Your task to perform on an android device: Search for sushi restaurants on Maps Image 0: 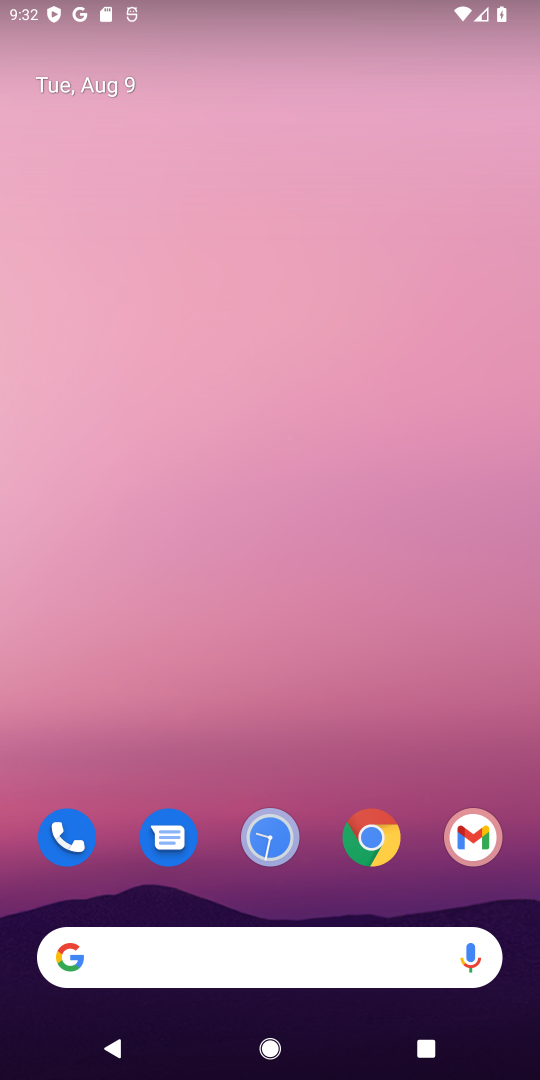
Step 0: drag from (313, 780) to (301, 276)
Your task to perform on an android device: Search for sushi restaurants on Maps Image 1: 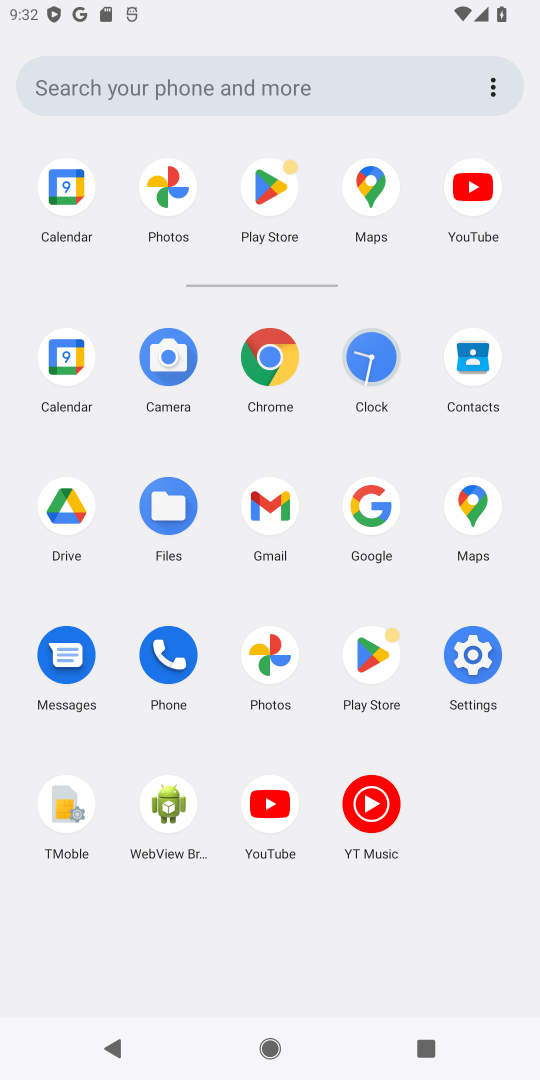
Step 1: click (466, 506)
Your task to perform on an android device: Search for sushi restaurants on Maps Image 2: 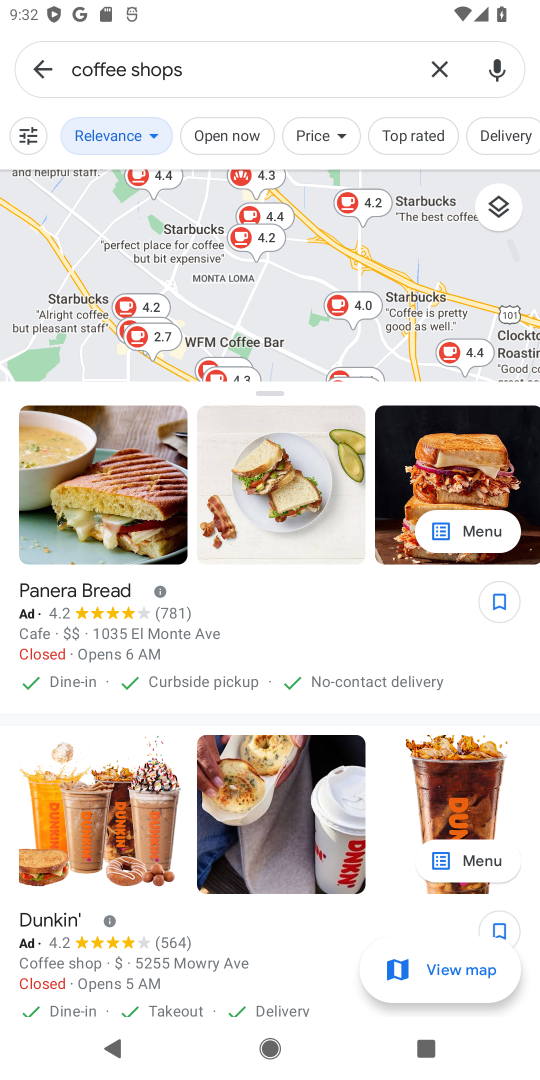
Step 2: click (439, 66)
Your task to perform on an android device: Search for sushi restaurants on Maps Image 3: 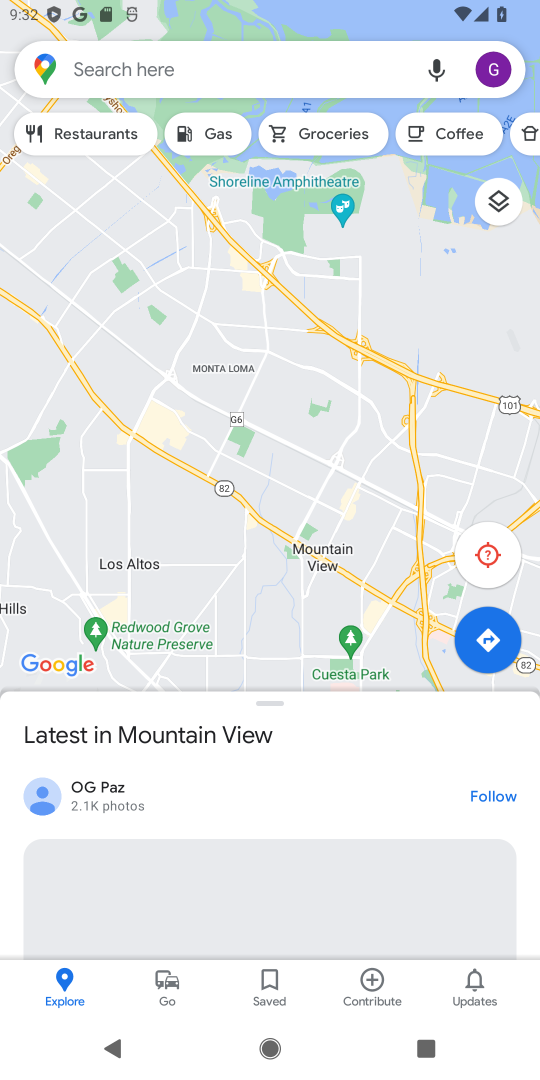
Step 3: click (249, 64)
Your task to perform on an android device: Search for sushi restaurants on Maps Image 4: 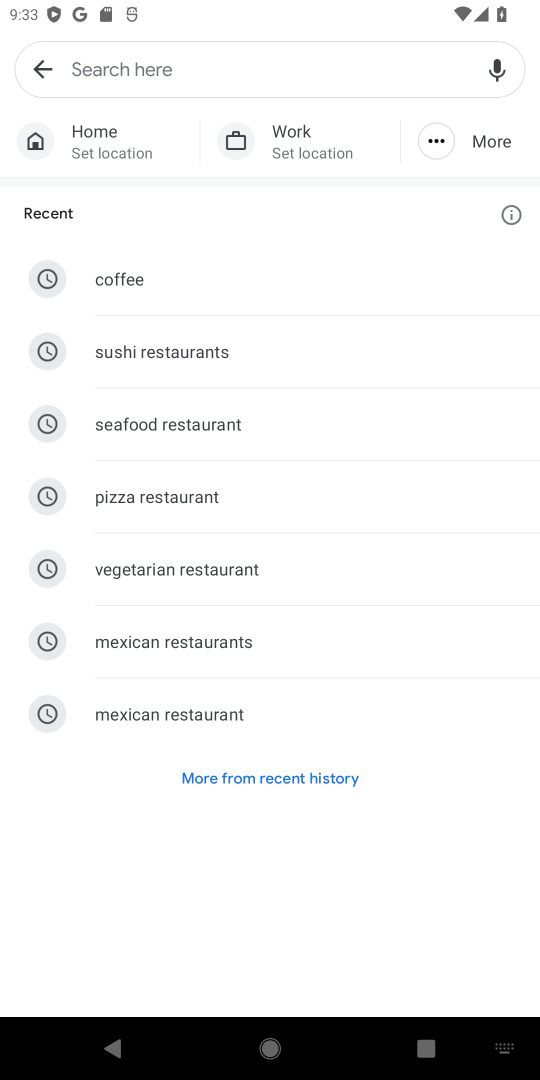
Step 4: type "Sushi restaurants"
Your task to perform on an android device: Search for sushi restaurants on Maps Image 5: 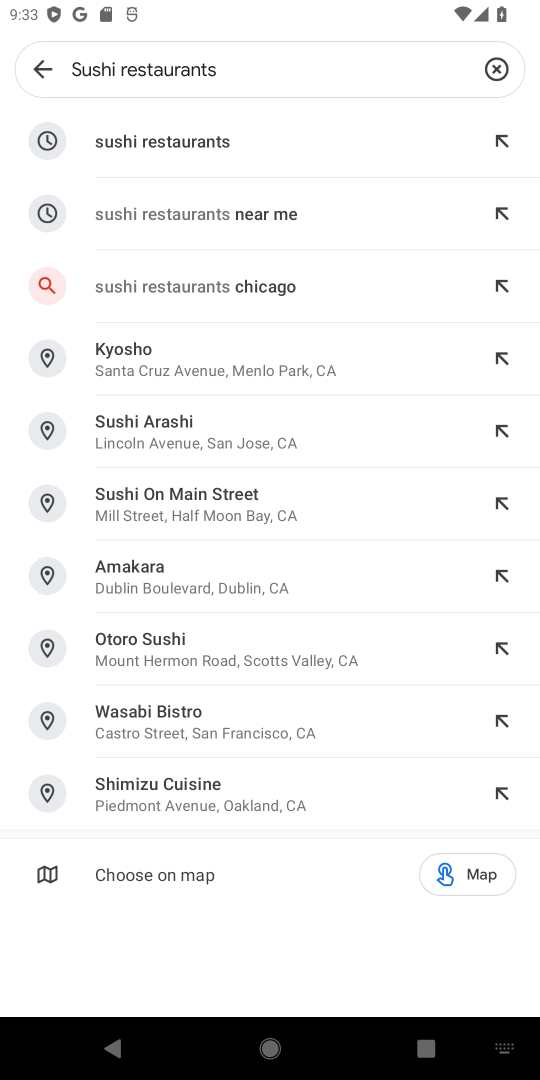
Step 5: click (208, 140)
Your task to perform on an android device: Search for sushi restaurants on Maps Image 6: 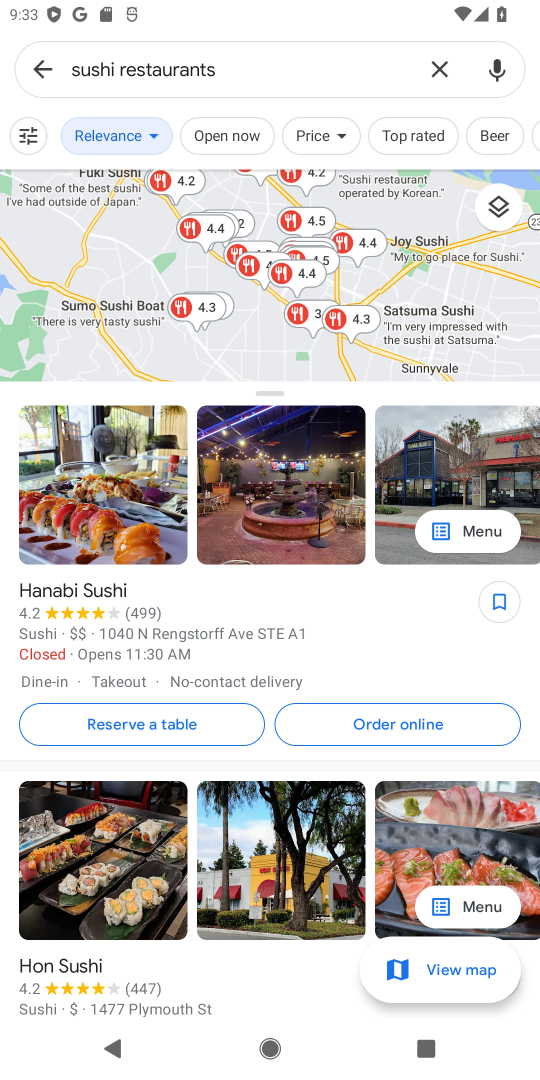
Step 6: task complete